Your task to perform on an android device: change notification settings in the gmail app Image 0: 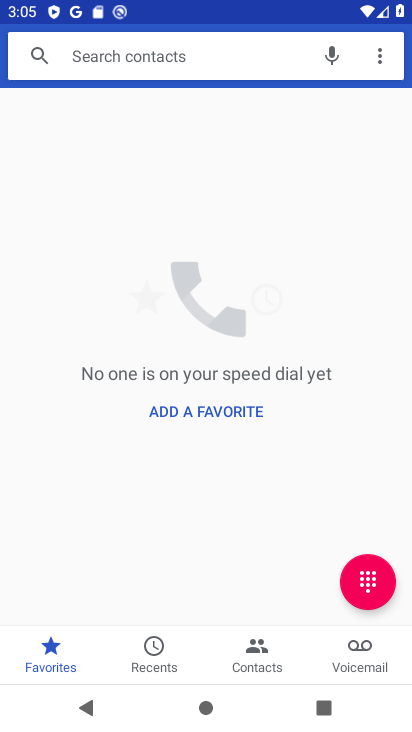
Step 0: press home button
Your task to perform on an android device: change notification settings in the gmail app Image 1: 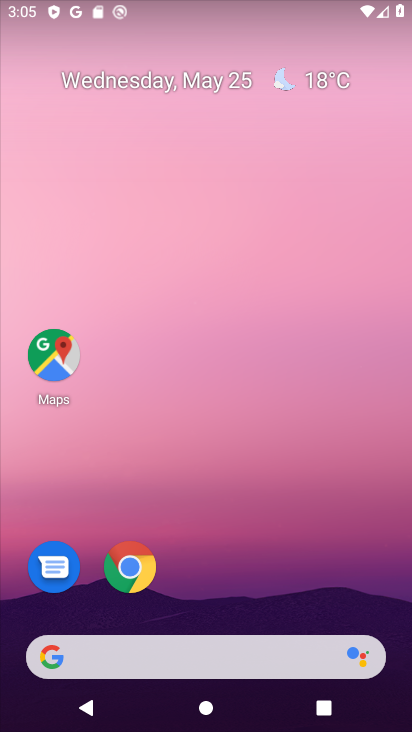
Step 1: drag from (388, 621) to (401, 204)
Your task to perform on an android device: change notification settings in the gmail app Image 2: 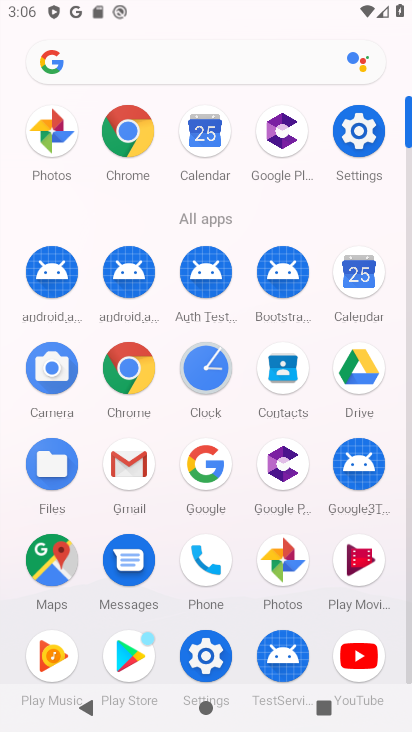
Step 2: click (118, 476)
Your task to perform on an android device: change notification settings in the gmail app Image 3: 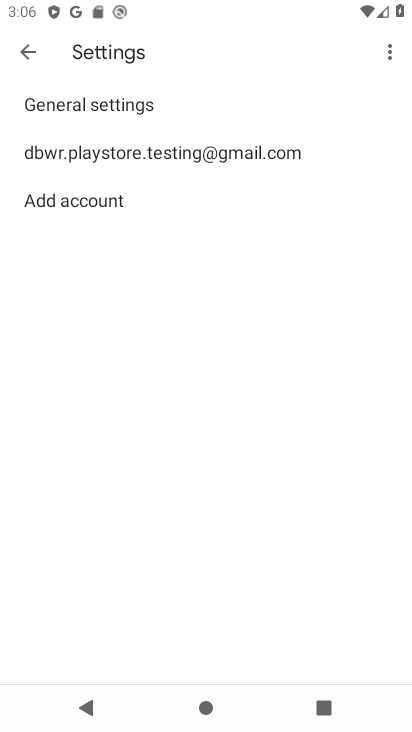
Step 3: click (171, 153)
Your task to perform on an android device: change notification settings in the gmail app Image 4: 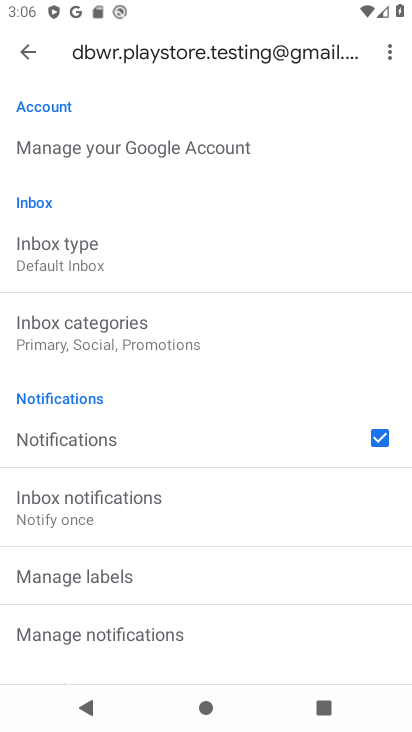
Step 4: drag from (234, 487) to (254, 367)
Your task to perform on an android device: change notification settings in the gmail app Image 5: 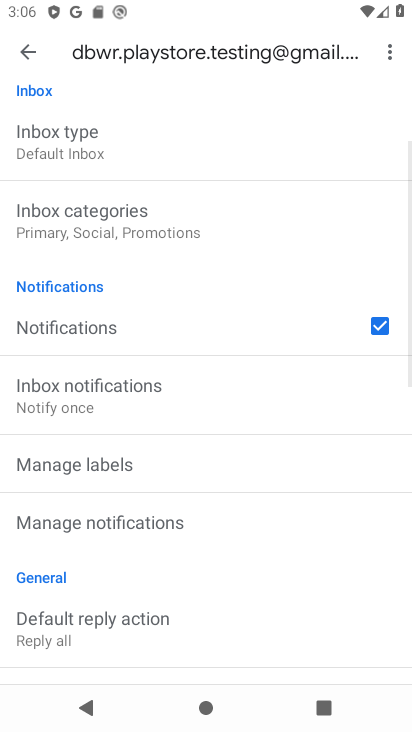
Step 5: drag from (282, 547) to (288, 386)
Your task to perform on an android device: change notification settings in the gmail app Image 6: 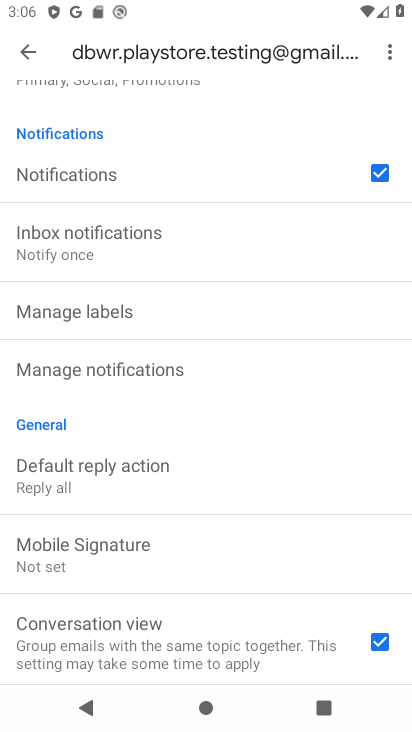
Step 6: drag from (317, 557) to (306, 352)
Your task to perform on an android device: change notification settings in the gmail app Image 7: 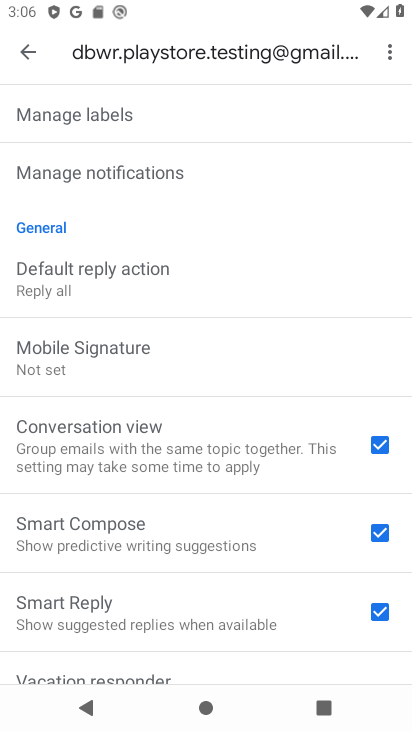
Step 7: drag from (285, 548) to (277, 411)
Your task to perform on an android device: change notification settings in the gmail app Image 8: 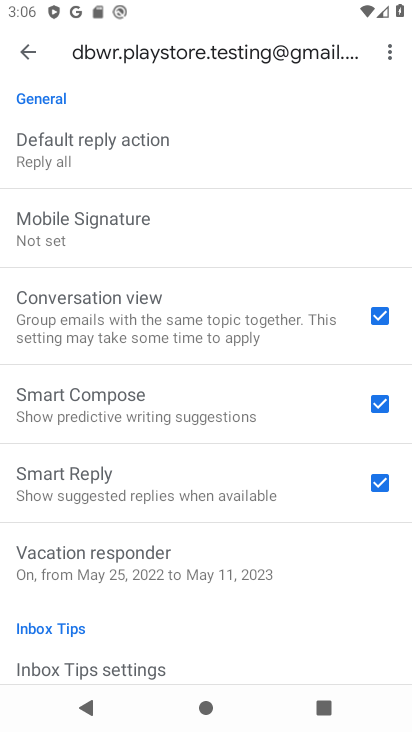
Step 8: drag from (307, 519) to (309, 429)
Your task to perform on an android device: change notification settings in the gmail app Image 9: 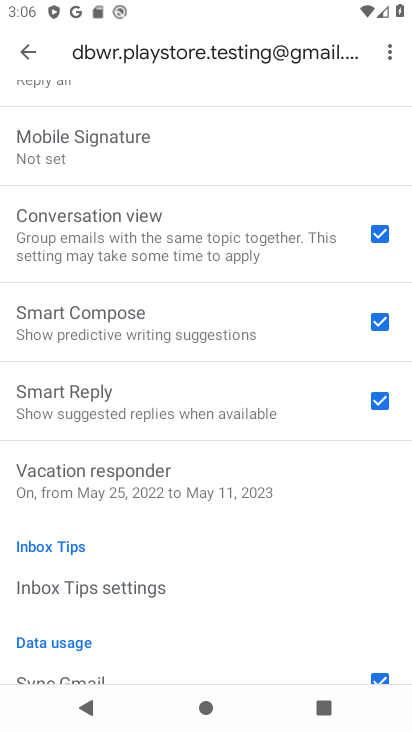
Step 9: drag from (293, 624) to (280, 426)
Your task to perform on an android device: change notification settings in the gmail app Image 10: 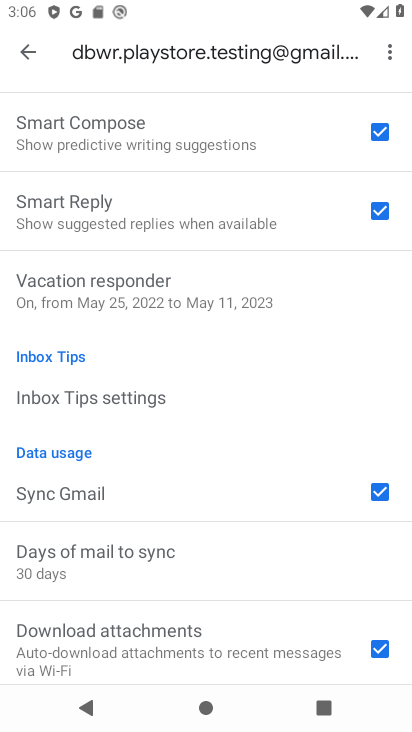
Step 10: drag from (280, 584) to (281, 440)
Your task to perform on an android device: change notification settings in the gmail app Image 11: 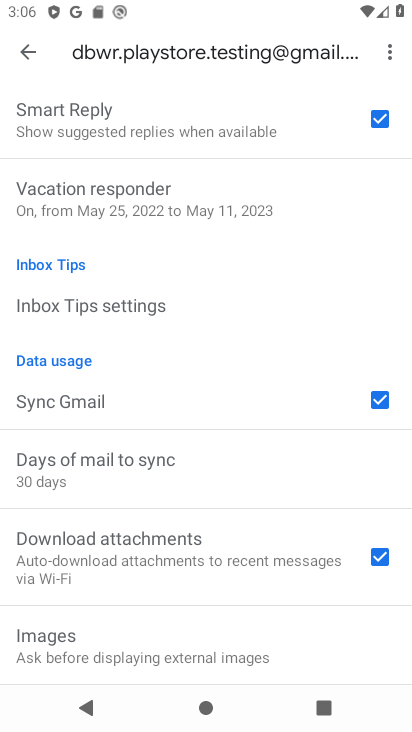
Step 11: drag from (280, 530) to (281, 329)
Your task to perform on an android device: change notification settings in the gmail app Image 12: 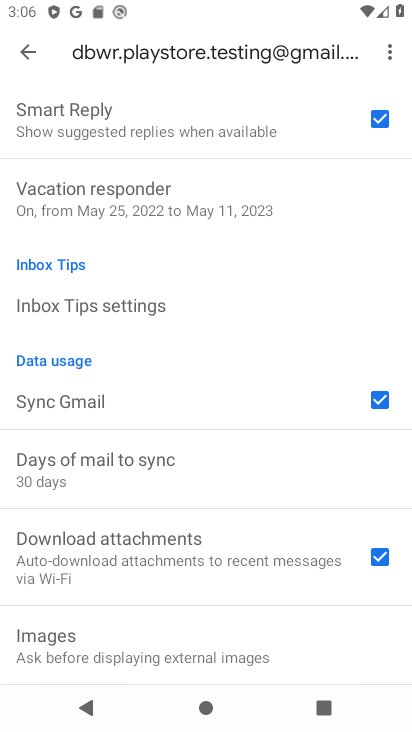
Step 12: drag from (303, 207) to (289, 357)
Your task to perform on an android device: change notification settings in the gmail app Image 13: 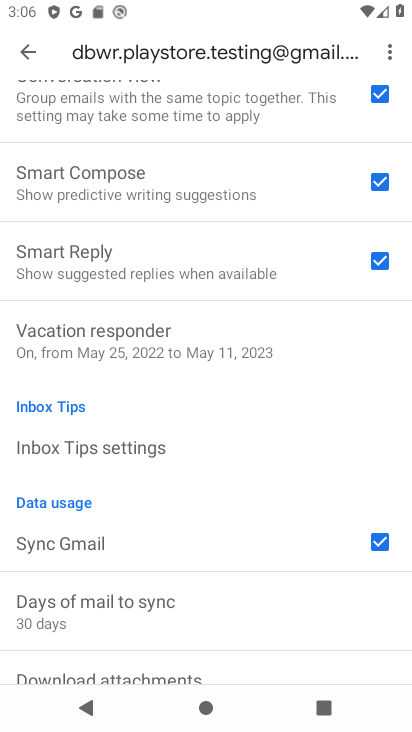
Step 13: drag from (303, 165) to (286, 304)
Your task to perform on an android device: change notification settings in the gmail app Image 14: 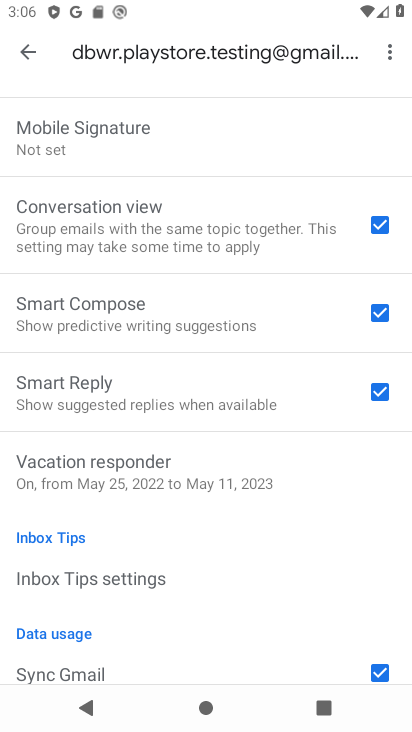
Step 14: drag from (264, 162) to (255, 318)
Your task to perform on an android device: change notification settings in the gmail app Image 15: 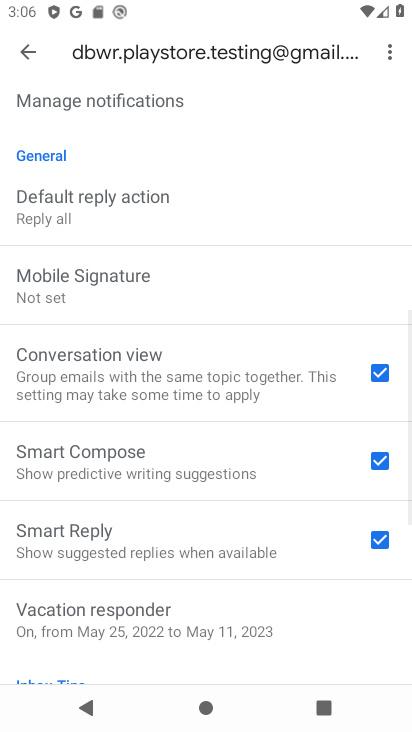
Step 15: drag from (221, 140) to (214, 310)
Your task to perform on an android device: change notification settings in the gmail app Image 16: 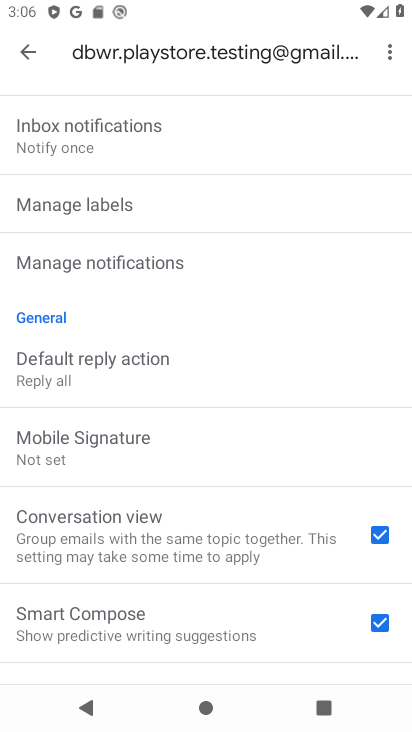
Step 16: drag from (245, 164) to (248, 321)
Your task to perform on an android device: change notification settings in the gmail app Image 17: 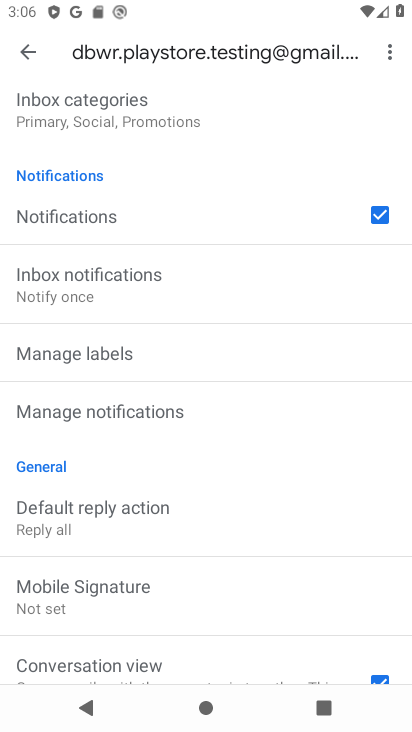
Step 17: drag from (208, 173) to (216, 284)
Your task to perform on an android device: change notification settings in the gmail app Image 18: 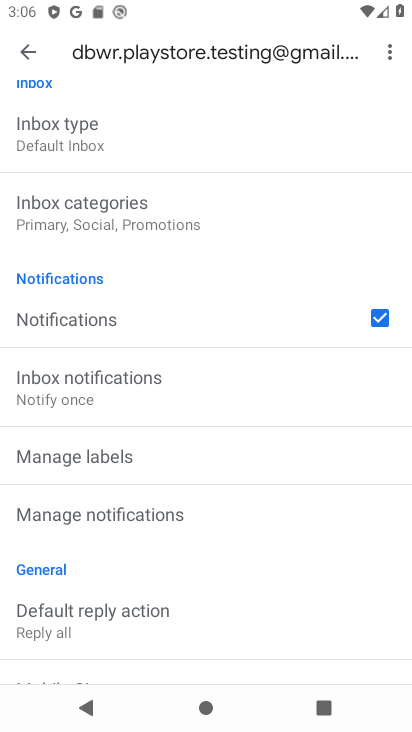
Step 18: drag from (152, 206) to (173, 347)
Your task to perform on an android device: change notification settings in the gmail app Image 19: 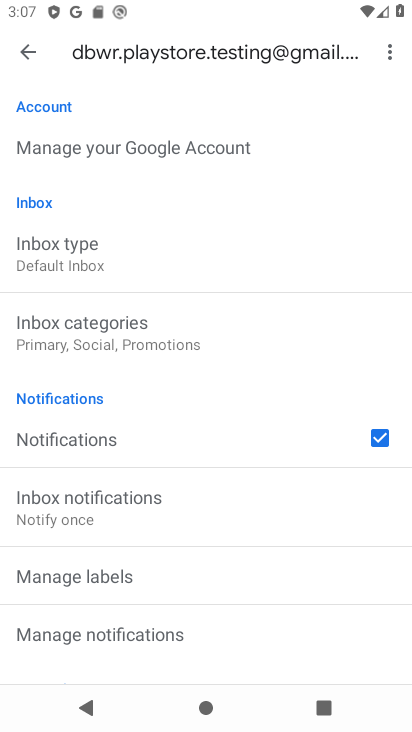
Step 19: click (89, 434)
Your task to perform on an android device: change notification settings in the gmail app Image 20: 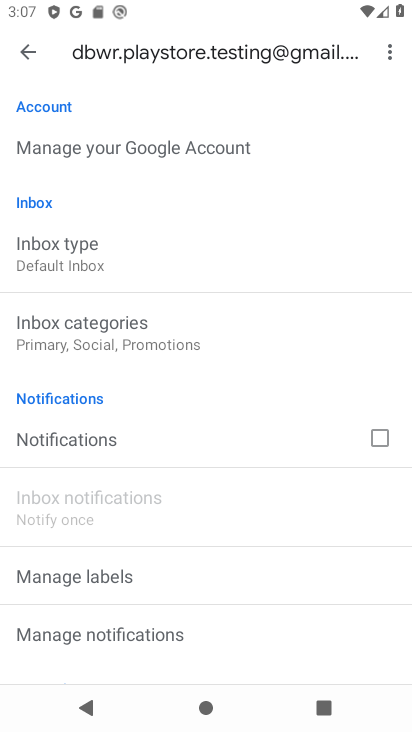
Step 20: task complete